Your task to perform on an android device: Find the nearest electronics store that's open tomorrow Image 0: 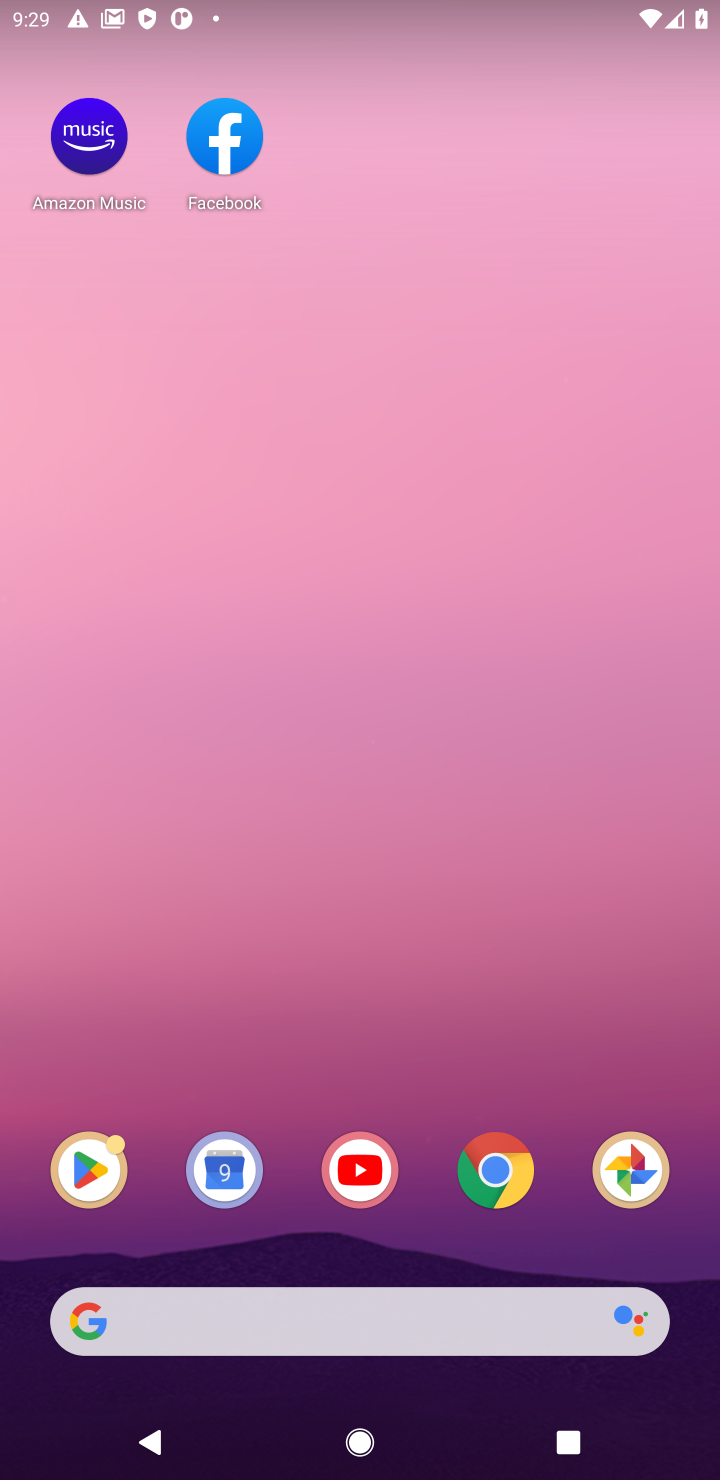
Step 0: click (292, 1342)
Your task to perform on an android device: Find the nearest electronics store that's open tomorrow Image 1: 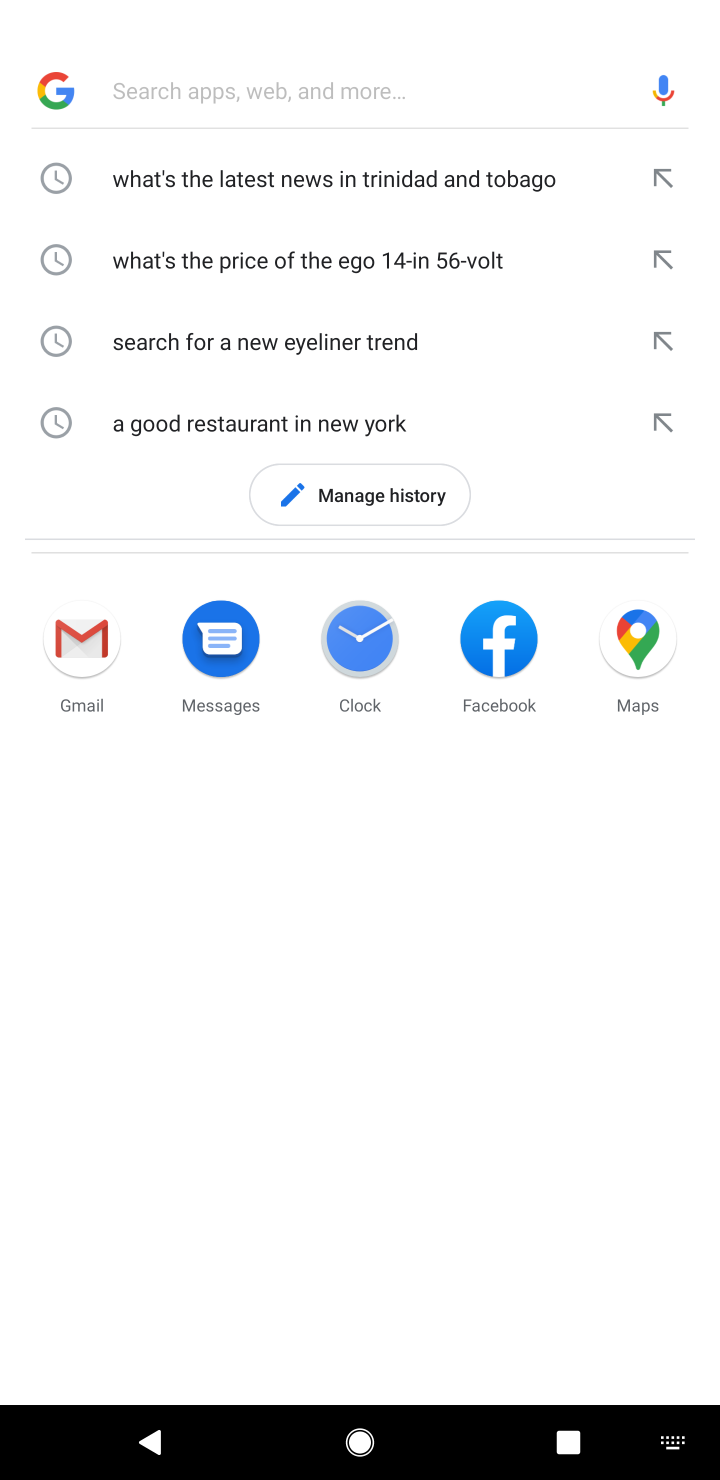
Step 1: type " the nearest electronics store that's open tomorrow"
Your task to perform on an android device: Find the nearest electronics store that's open tomorrow Image 2: 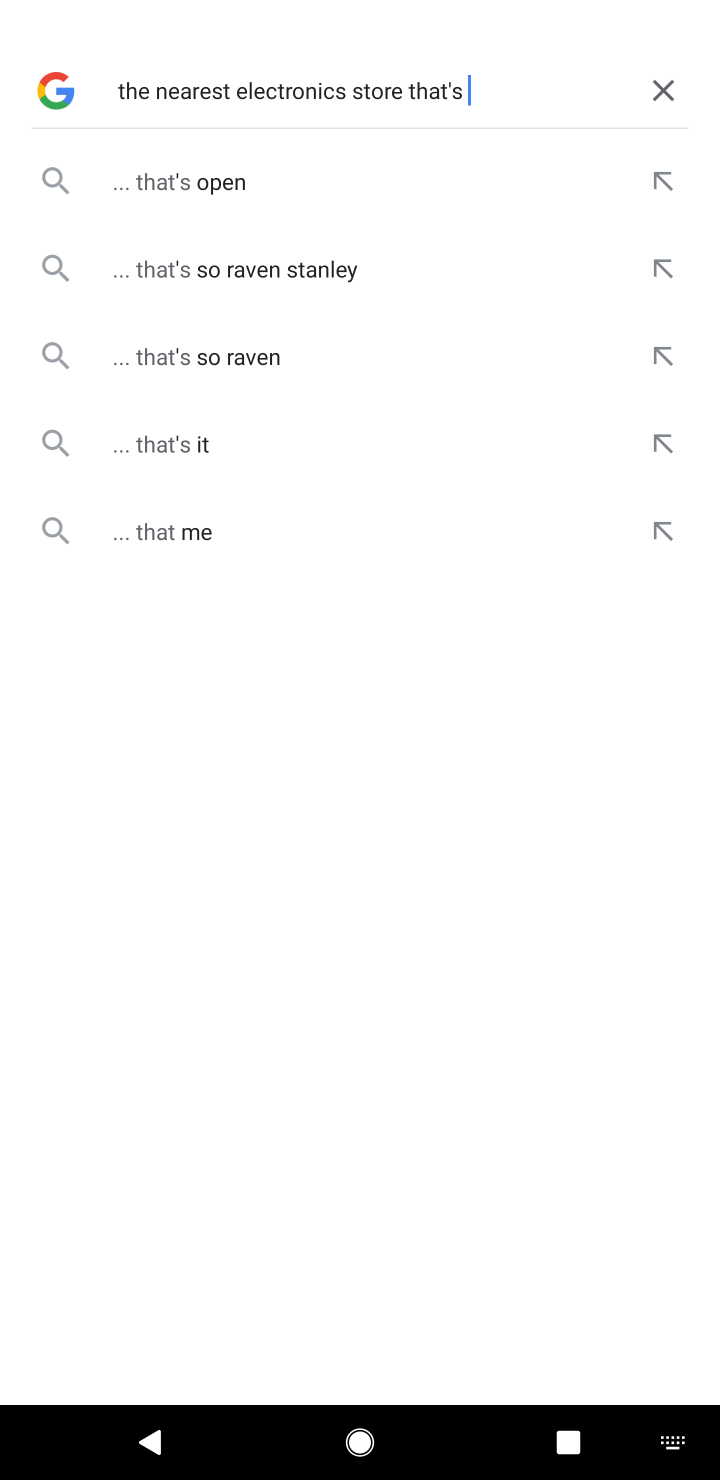
Step 2: type "open tomorrow"
Your task to perform on an android device: Find the nearest electronics store that's open tomorrow Image 3: 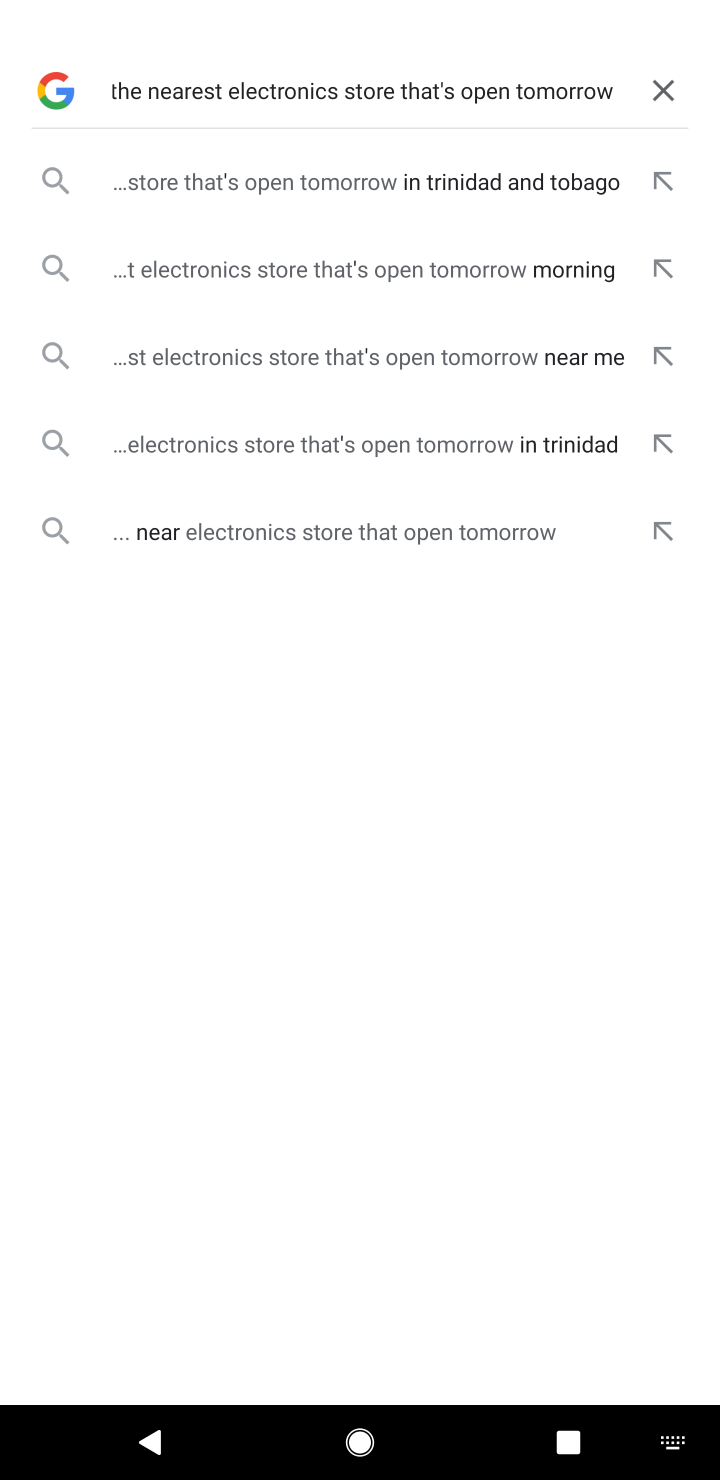
Step 3: click (385, 538)
Your task to perform on an android device: Find the nearest electronics store that's open tomorrow Image 4: 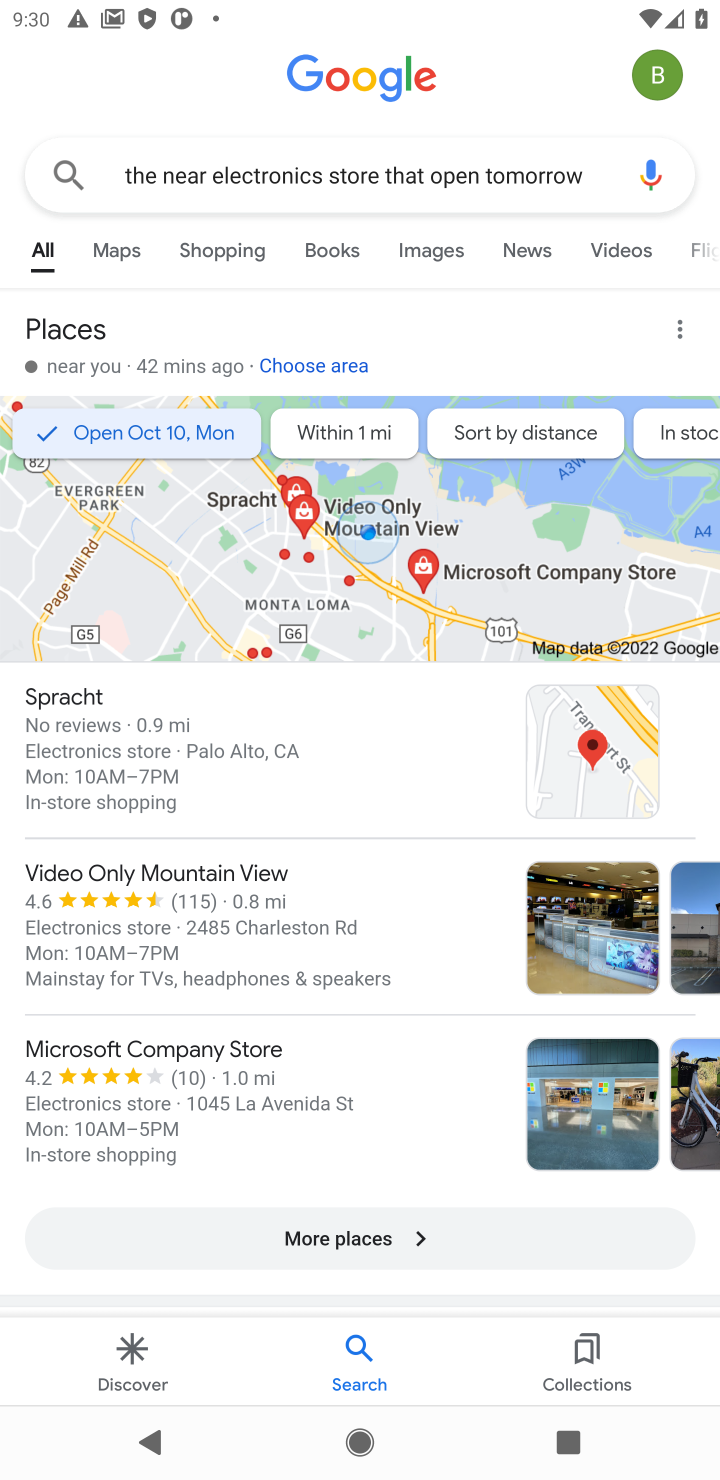
Step 4: click (305, 1001)
Your task to perform on an android device: Find the nearest electronics store that's open tomorrow Image 5: 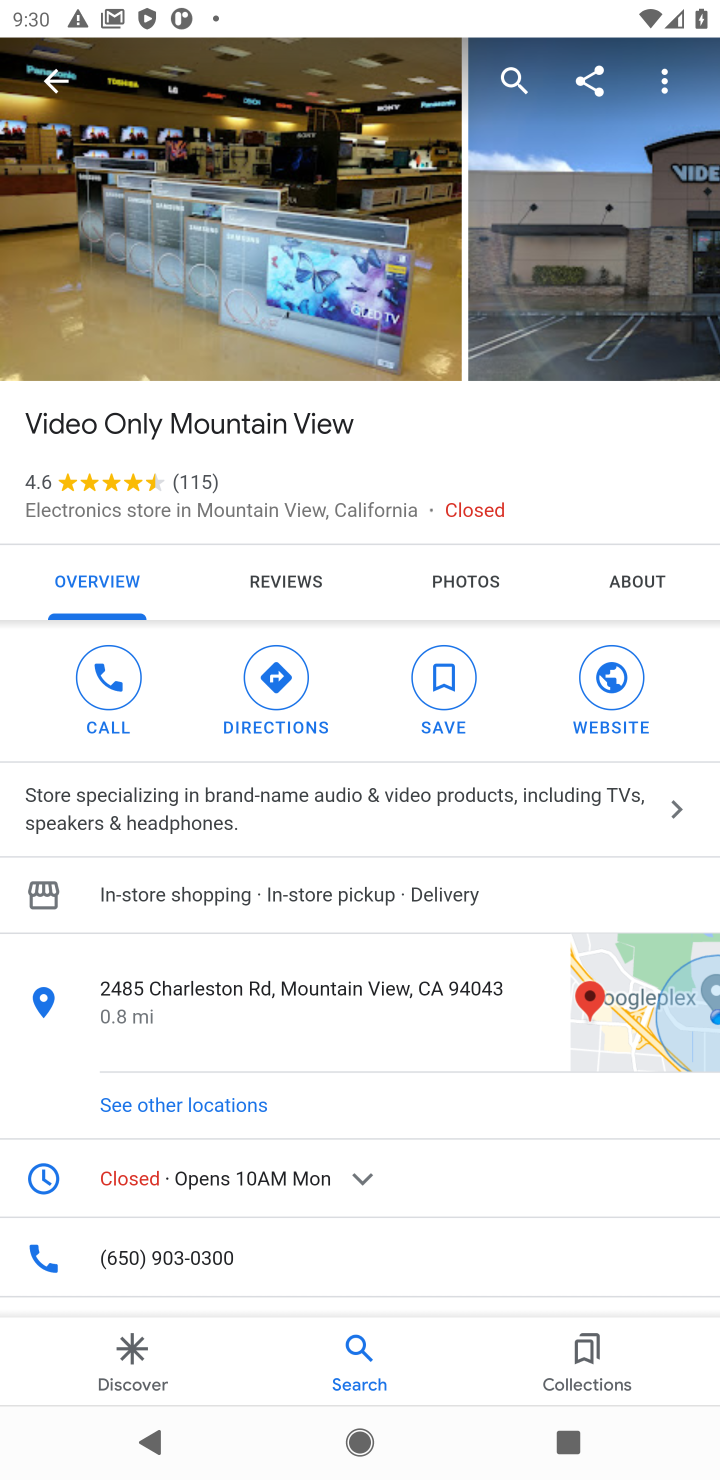
Step 5: task complete